Your task to perform on an android device: check the backup settings in the google photos Image 0: 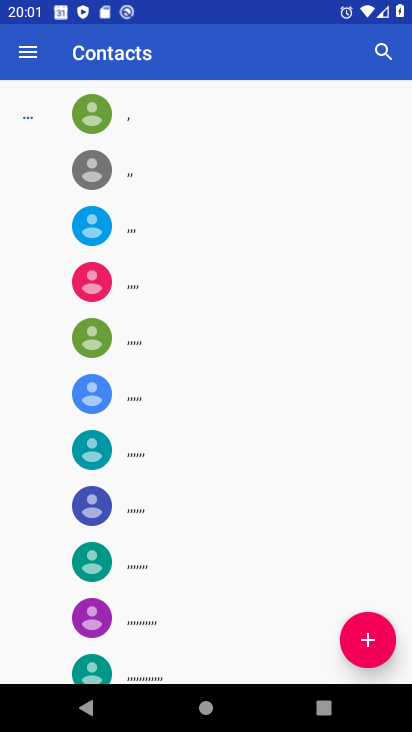
Step 0: press home button
Your task to perform on an android device: check the backup settings in the google photos Image 1: 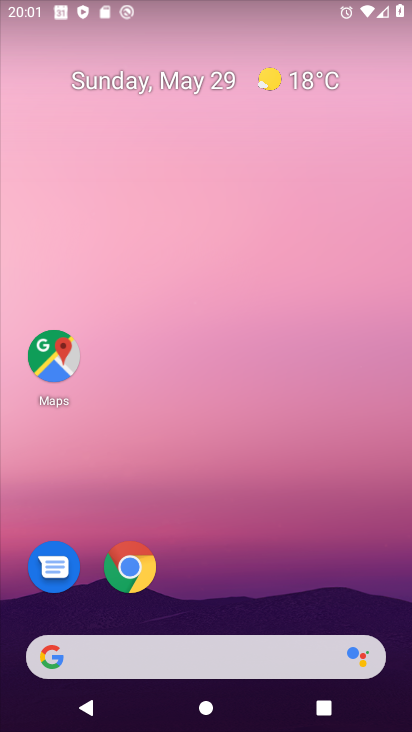
Step 1: drag from (399, 704) to (315, 72)
Your task to perform on an android device: check the backup settings in the google photos Image 2: 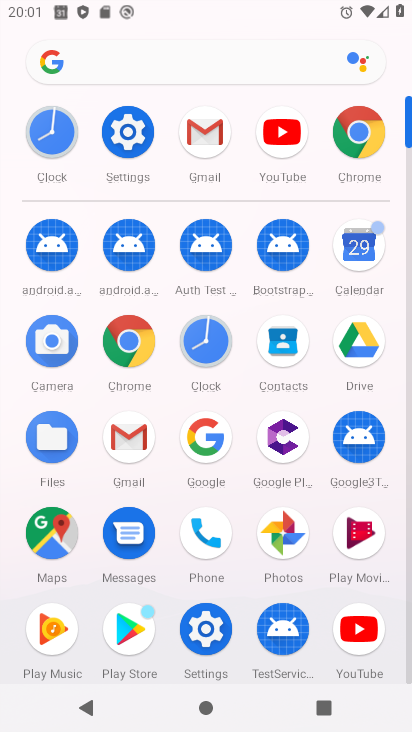
Step 2: click (267, 539)
Your task to perform on an android device: check the backup settings in the google photos Image 3: 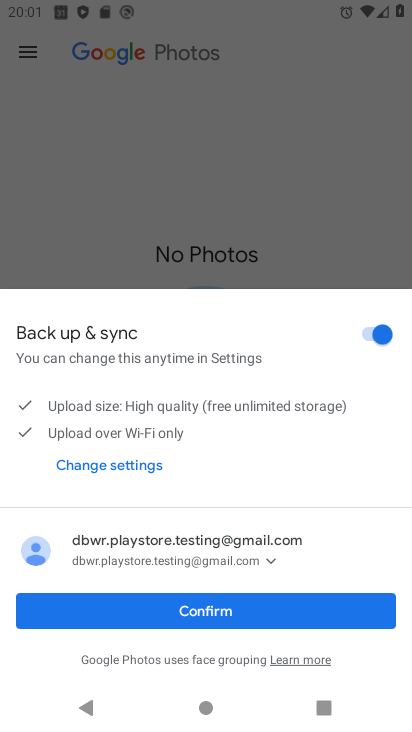
Step 3: click (234, 618)
Your task to perform on an android device: check the backup settings in the google photos Image 4: 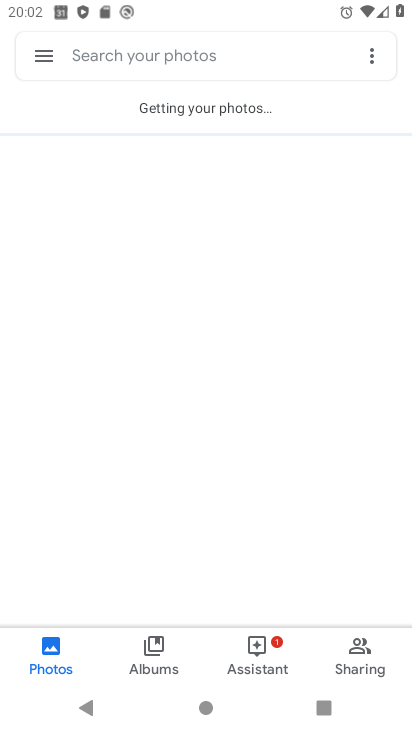
Step 4: click (49, 55)
Your task to perform on an android device: check the backup settings in the google photos Image 5: 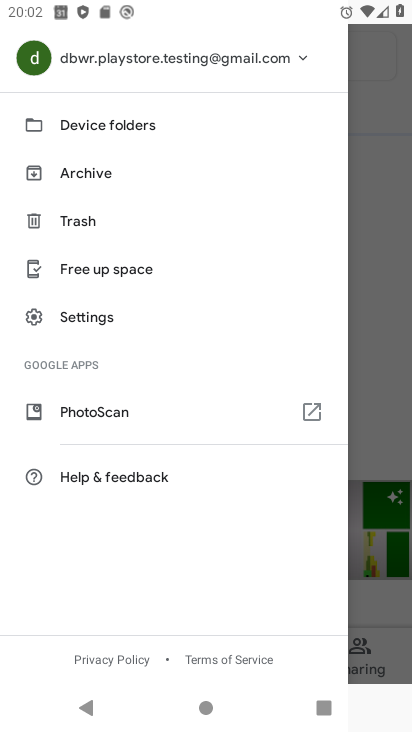
Step 5: click (84, 318)
Your task to perform on an android device: check the backup settings in the google photos Image 6: 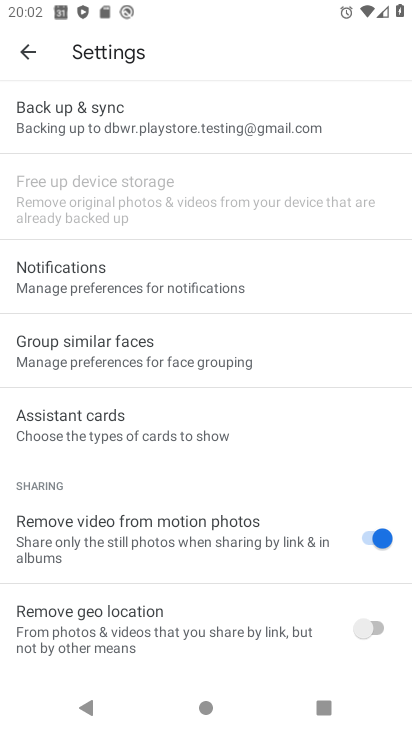
Step 6: click (61, 109)
Your task to perform on an android device: check the backup settings in the google photos Image 7: 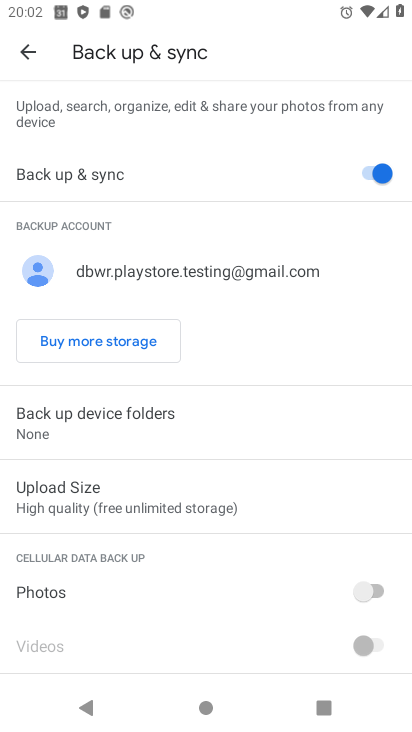
Step 7: task complete